Your task to perform on an android device: toggle wifi Image 0: 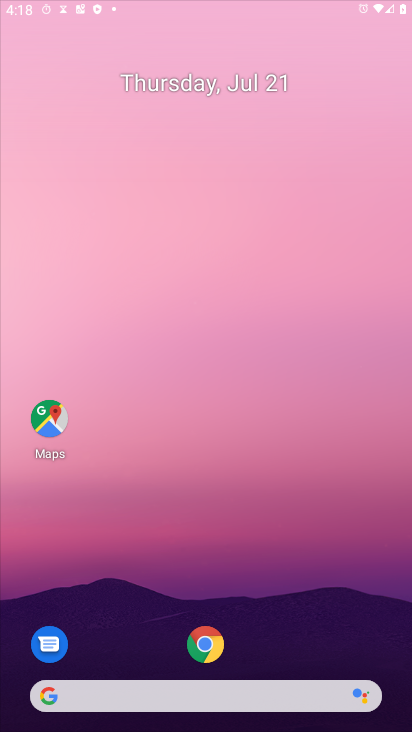
Step 0: press home button
Your task to perform on an android device: toggle wifi Image 1: 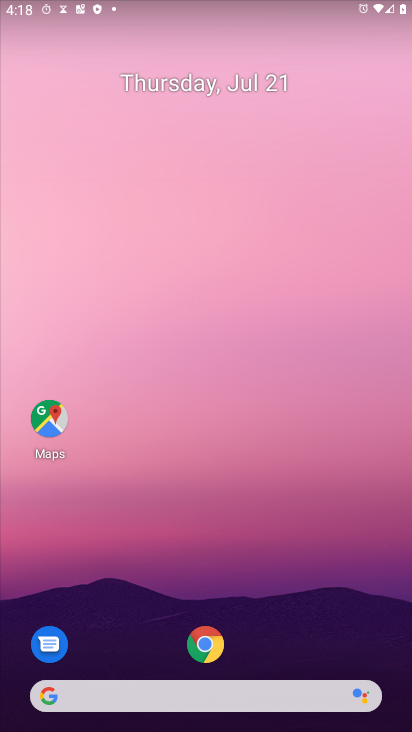
Step 1: drag from (207, 1) to (210, 478)
Your task to perform on an android device: toggle wifi Image 2: 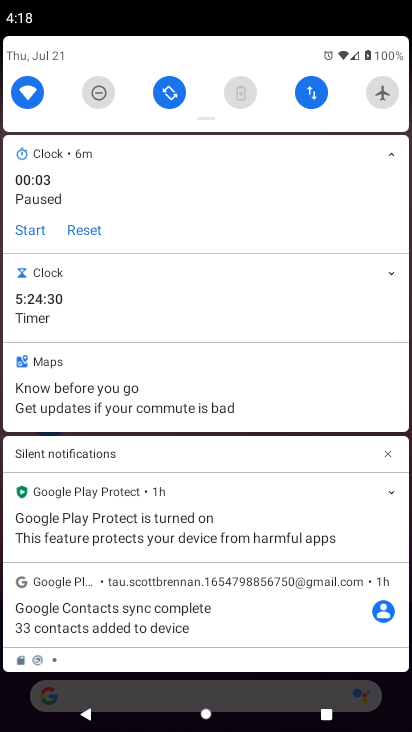
Step 2: click (25, 88)
Your task to perform on an android device: toggle wifi Image 3: 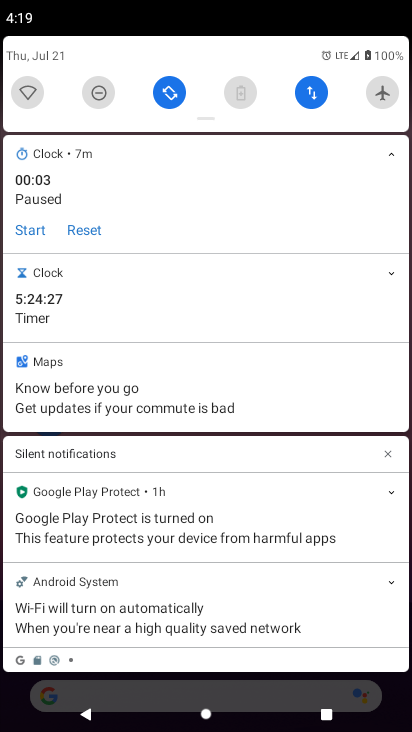
Step 3: task complete